Your task to perform on an android device: change the clock display to show seconds Image 0: 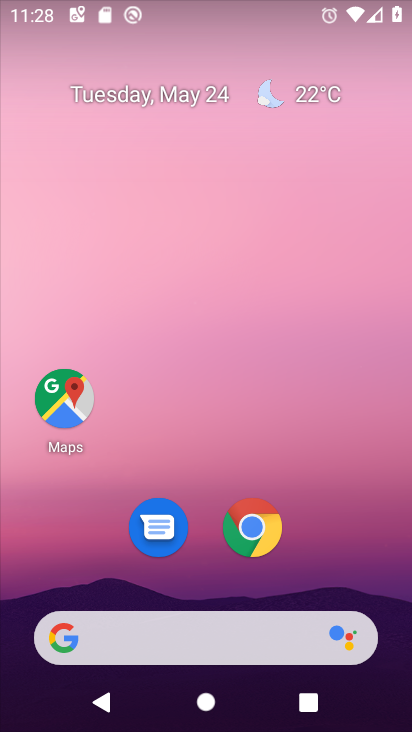
Step 0: press home button
Your task to perform on an android device: change the clock display to show seconds Image 1: 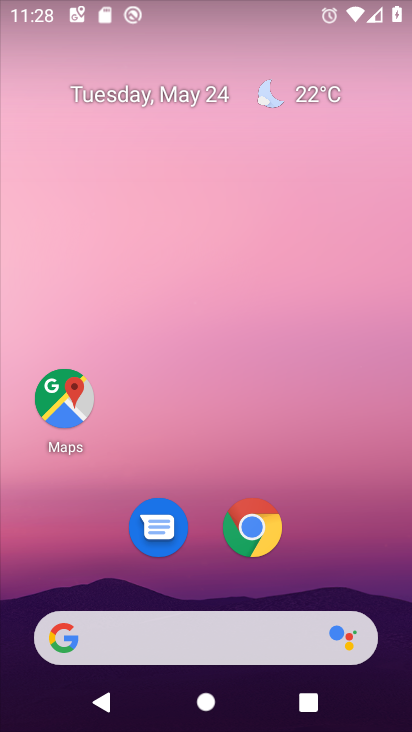
Step 1: drag from (195, 632) to (335, 86)
Your task to perform on an android device: change the clock display to show seconds Image 2: 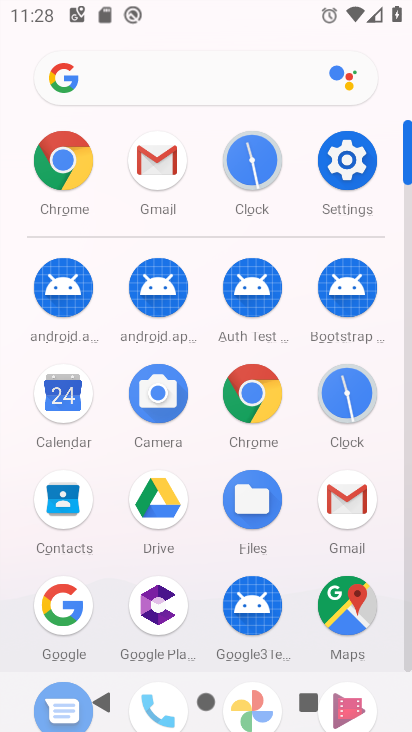
Step 2: click (342, 393)
Your task to perform on an android device: change the clock display to show seconds Image 3: 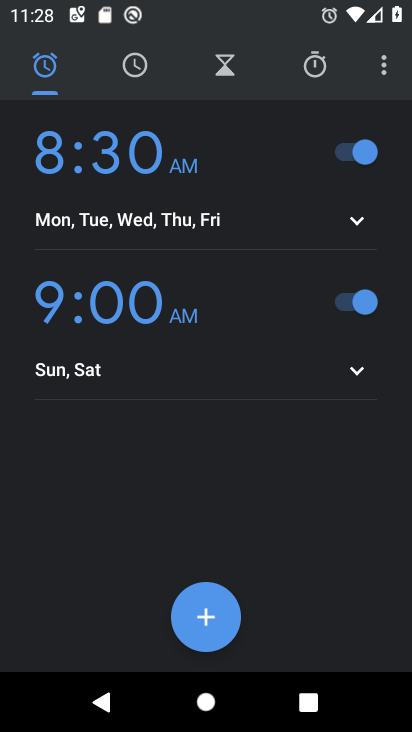
Step 3: click (387, 71)
Your task to perform on an android device: change the clock display to show seconds Image 4: 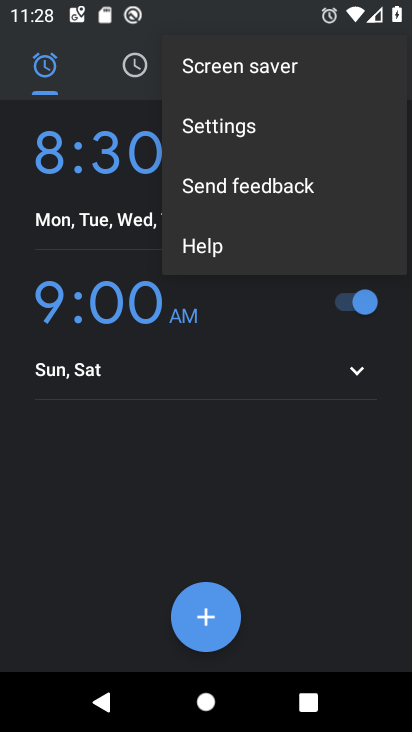
Step 4: click (275, 126)
Your task to perform on an android device: change the clock display to show seconds Image 5: 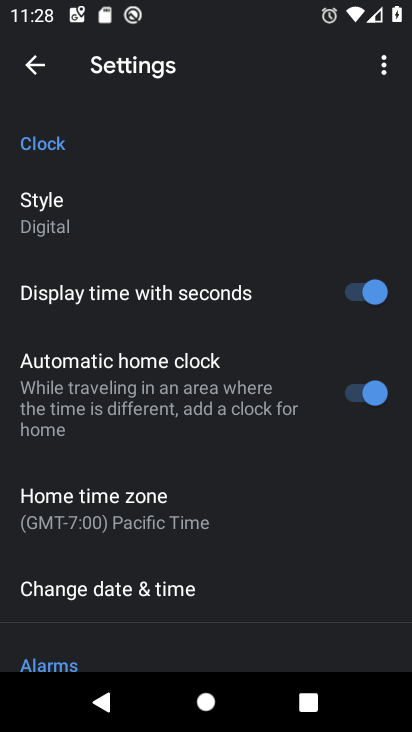
Step 5: task complete